Your task to perform on an android device: find snoozed emails in the gmail app Image 0: 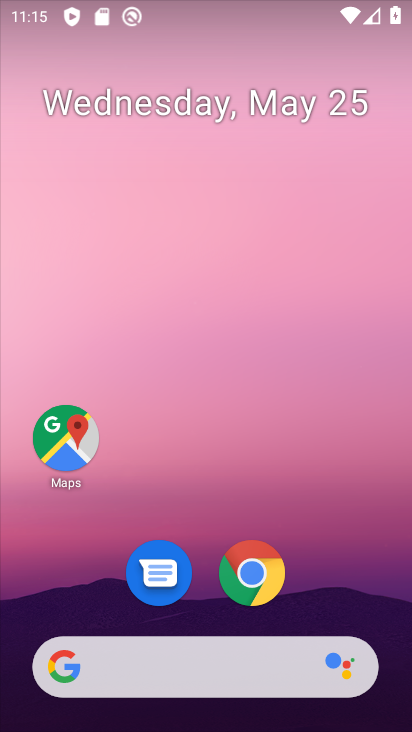
Step 0: drag from (199, 655) to (202, 150)
Your task to perform on an android device: find snoozed emails in the gmail app Image 1: 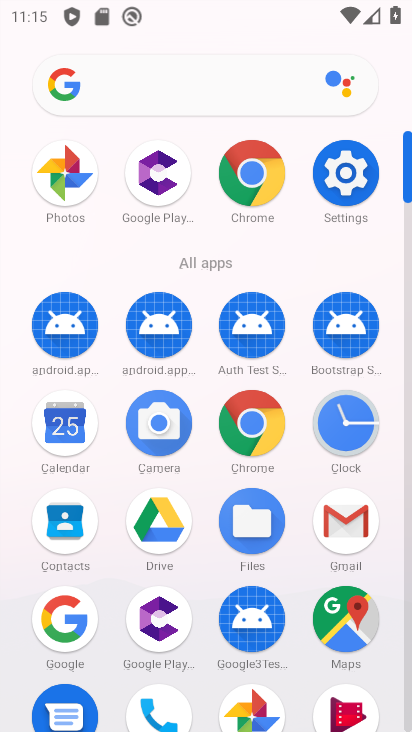
Step 1: drag from (222, 648) to (205, 184)
Your task to perform on an android device: find snoozed emails in the gmail app Image 2: 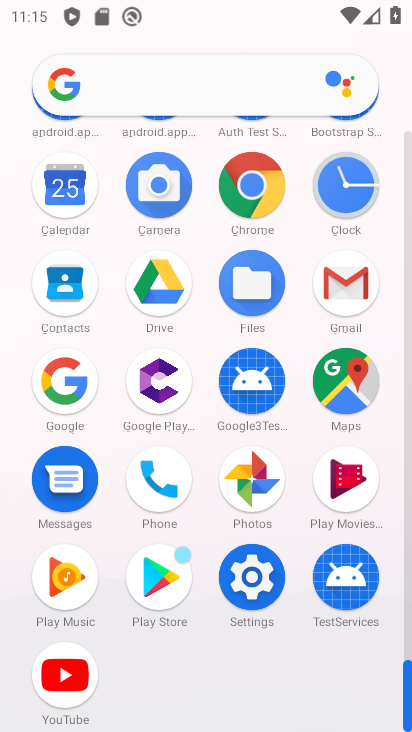
Step 2: click (351, 280)
Your task to perform on an android device: find snoozed emails in the gmail app Image 3: 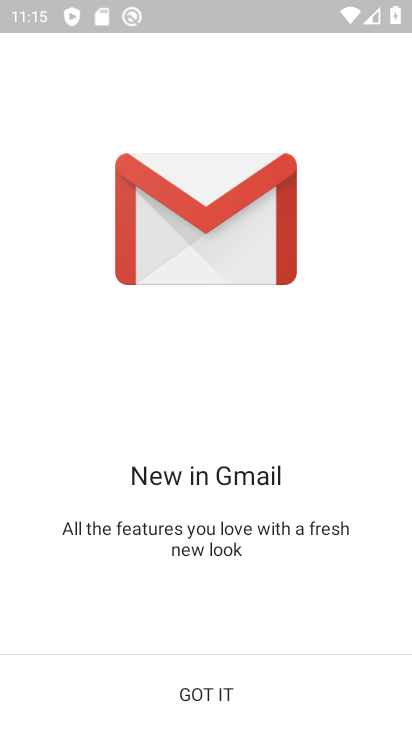
Step 3: click (236, 704)
Your task to perform on an android device: find snoozed emails in the gmail app Image 4: 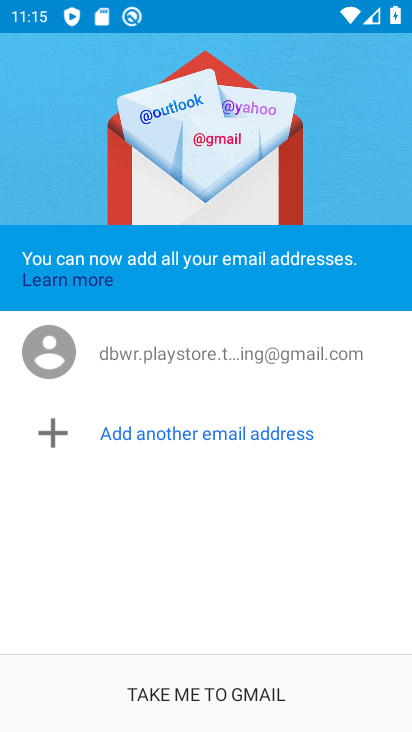
Step 4: click (210, 677)
Your task to perform on an android device: find snoozed emails in the gmail app Image 5: 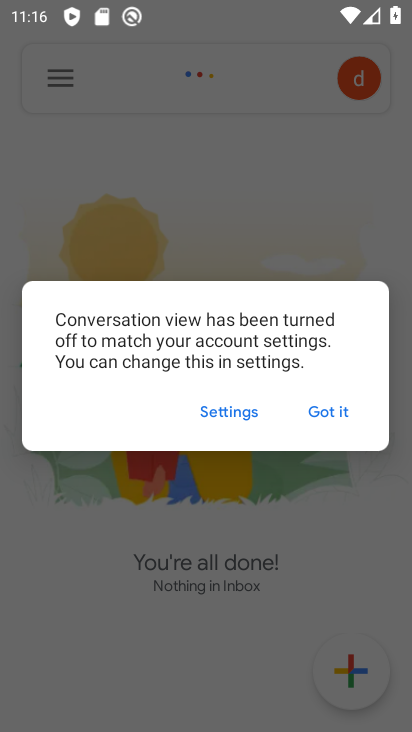
Step 5: click (325, 406)
Your task to perform on an android device: find snoozed emails in the gmail app Image 6: 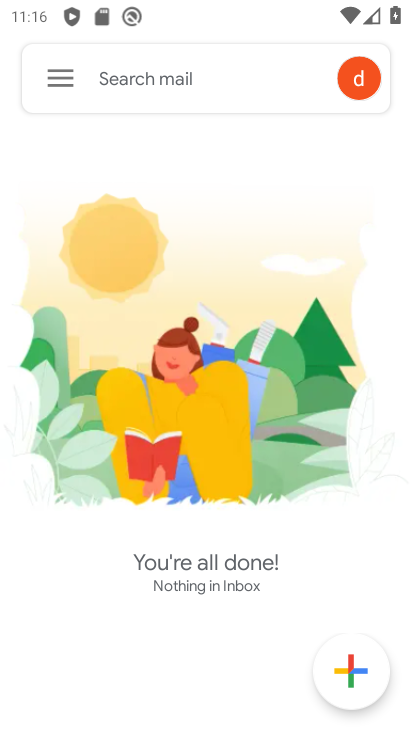
Step 6: click (68, 83)
Your task to perform on an android device: find snoozed emails in the gmail app Image 7: 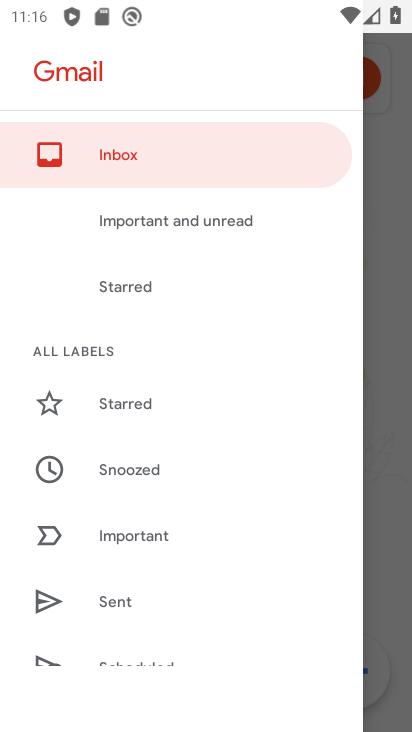
Step 7: click (107, 468)
Your task to perform on an android device: find snoozed emails in the gmail app Image 8: 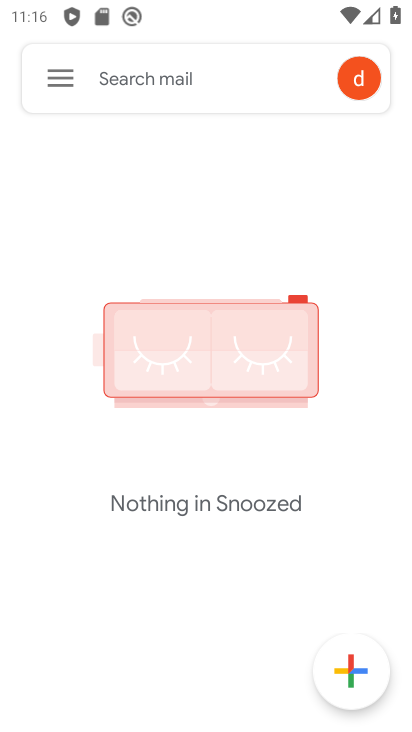
Step 8: task complete